Your task to perform on an android device: Go to settings Image 0: 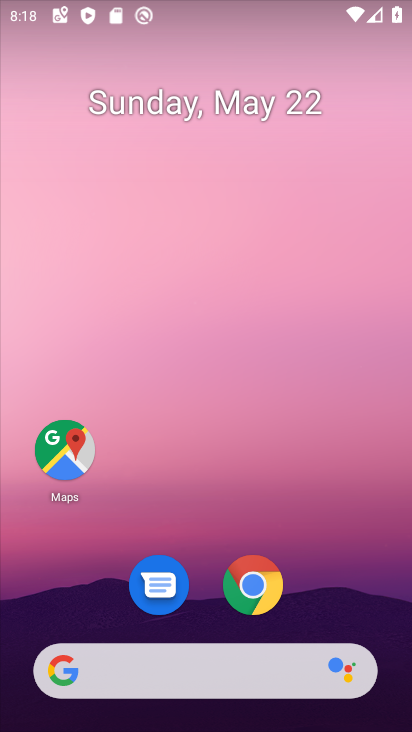
Step 0: drag from (200, 488) to (181, 30)
Your task to perform on an android device: Go to settings Image 1: 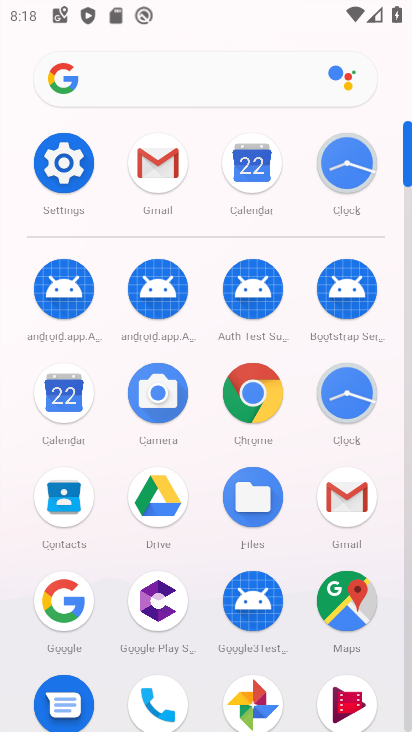
Step 1: click (71, 155)
Your task to perform on an android device: Go to settings Image 2: 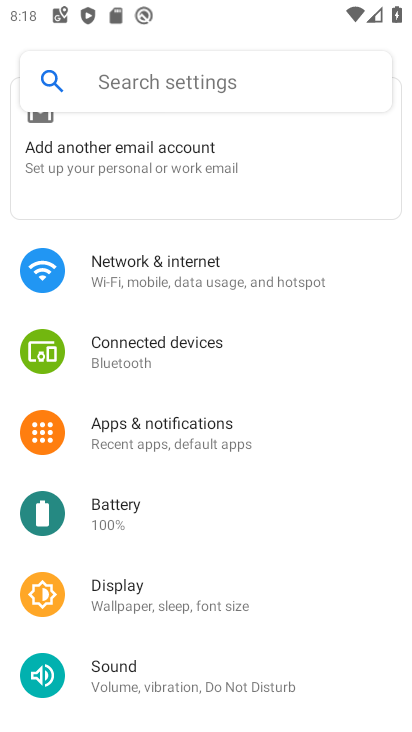
Step 2: task complete